Your task to perform on an android device: turn on javascript in the chrome app Image 0: 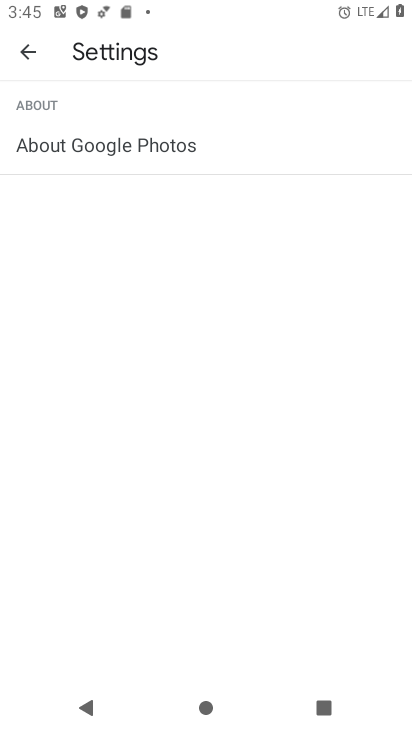
Step 0: press home button
Your task to perform on an android device: turn on javascript in the chrome app Image 1: 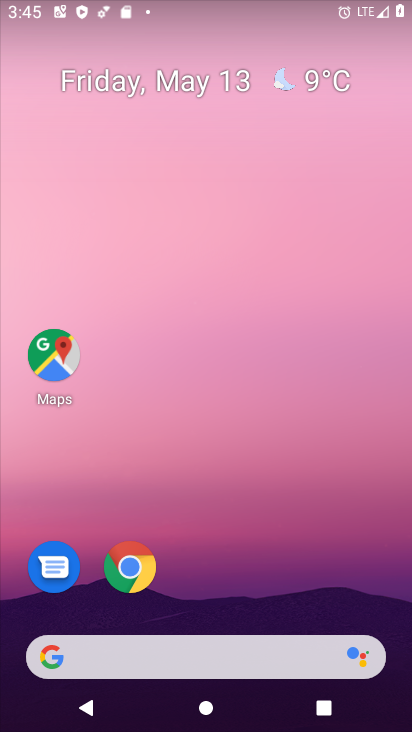
Step 1: click (131, 572)
Your task to perform on an android device: turn on javascript in the chrome app Image 2: 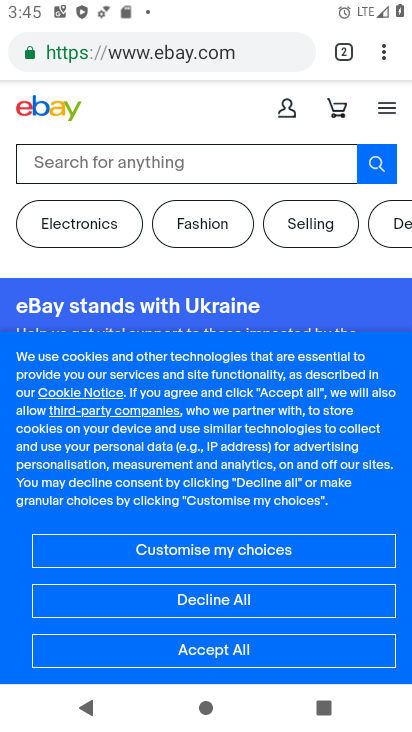
Step 2: drag from (381, 54) to (184, 617)
Your task to perform on an android device: turn on javascript in the chrome app Image 3: 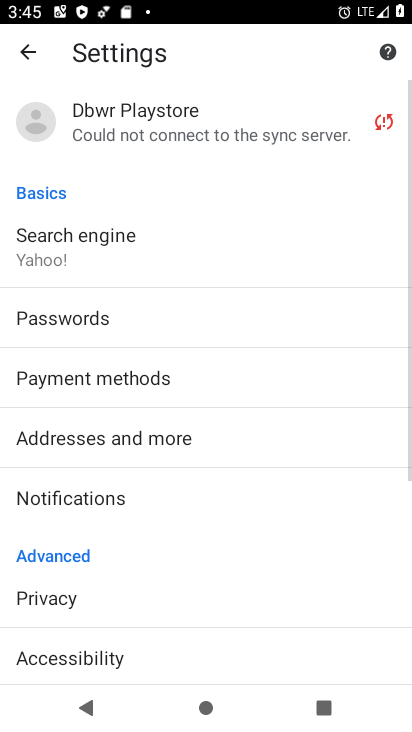
Step 3: drag from (108, 603) to (159, 184)
Your task to perform on an android device: turn on javascript in the chrome app Image 4: 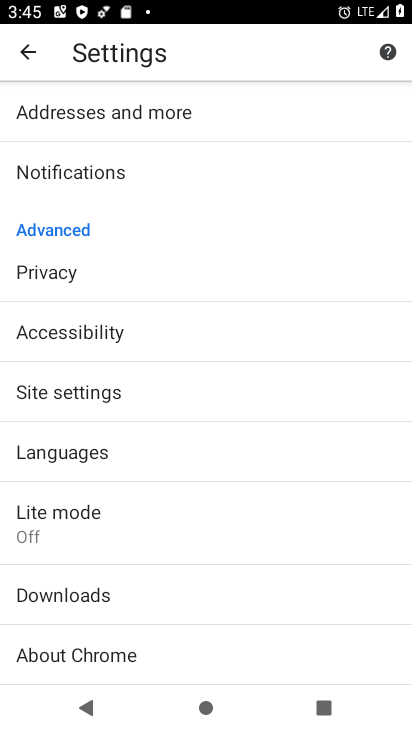
Step 4: click (63, 388)
Your task to perform on an android device: turn on javascript in the chrome app Image 5: 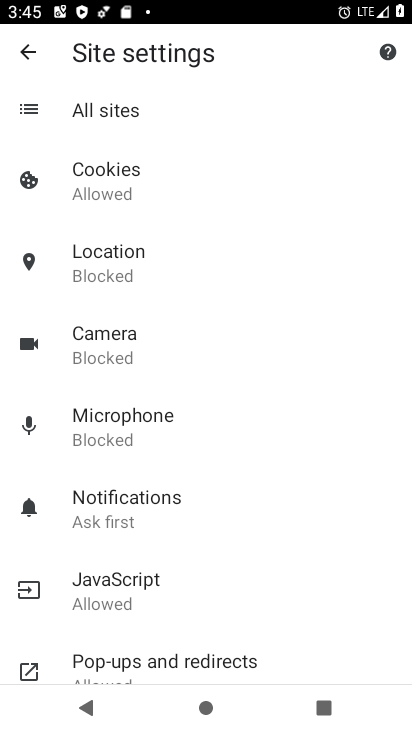
Step 5: click (104, 587)
Your task to perform on an android device: turn on javascript in the chrome app Image 6: 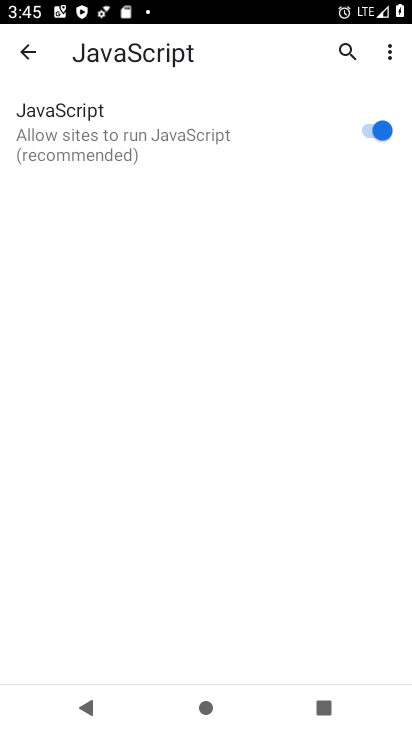
Step 6: task complete